Your task to perform on an android device: uninstall "Facebook Messenger" Image 0: 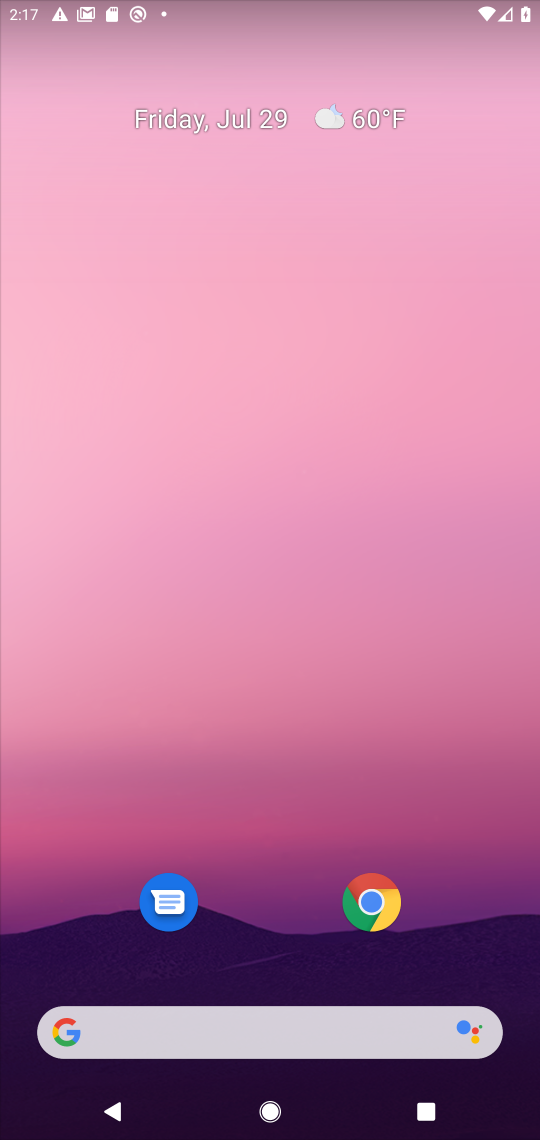
Step 0: drag from (219, 1016) to (271, 233)
Your task to perform on an android device: uninstall "Facebook Messenger" Image 1: 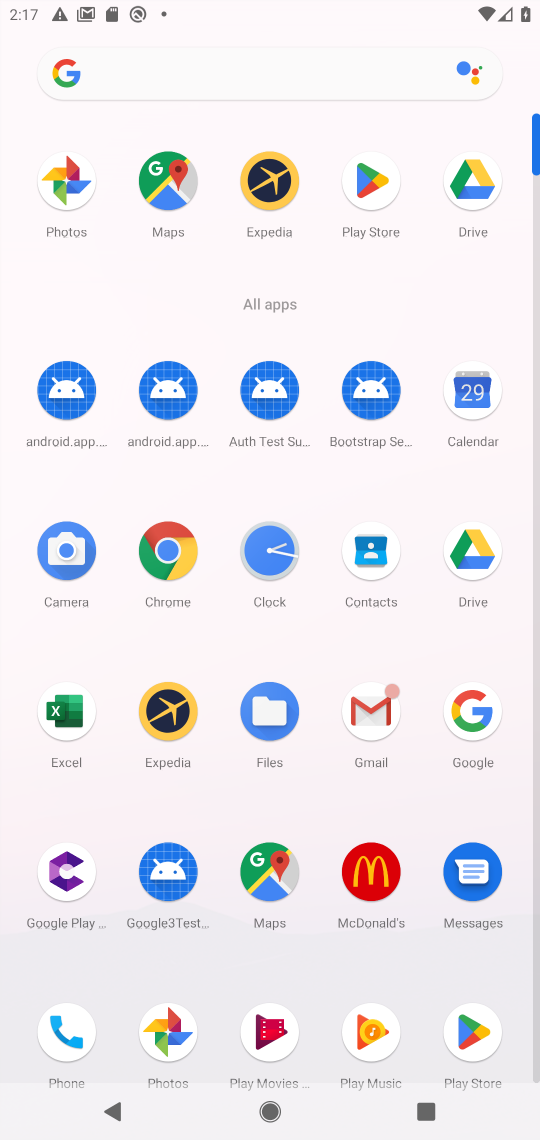
Step 1: click (454, 1031)
Your task to perform on an android device: uninstall "Facebook Messenger" Image 2: 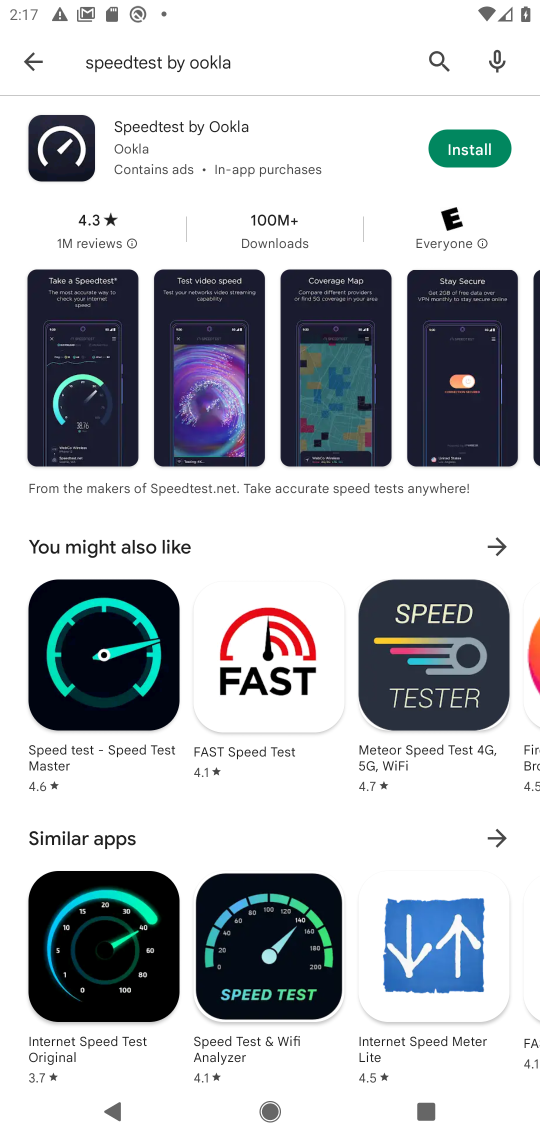
Step 2: click (433, 64)
Your task to perform on an android device: uninstall "Facebook Messenger" Image 3: 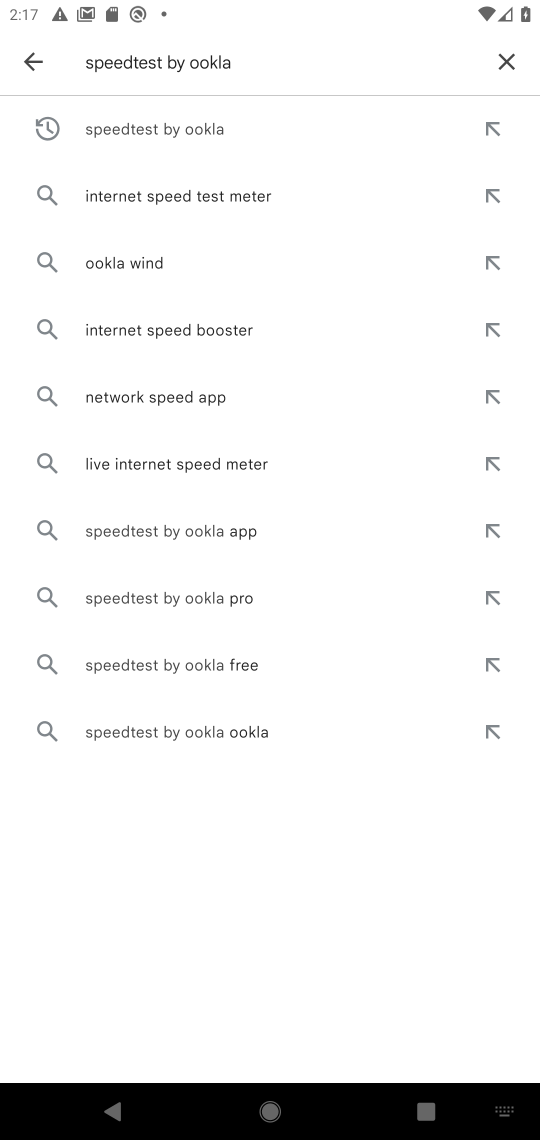
Step 3: type "Facebook Messenger"
Your task to perform on an android device: uninstall "Facebook Messenger" Image 4: 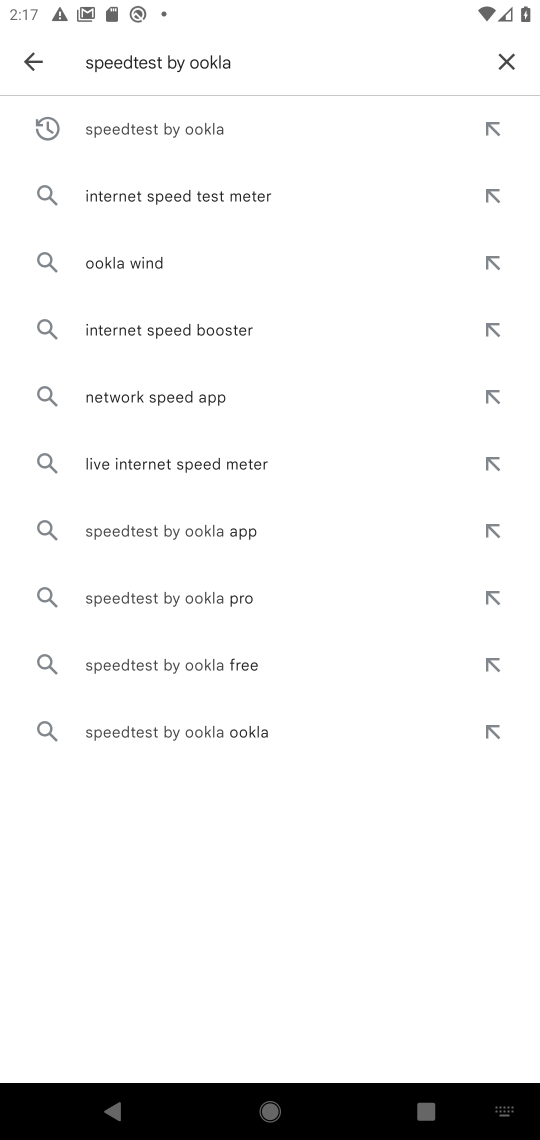
Step 4: click (500, 57)
Your task to perform on an android device: uninstall "Facebook Messenger" Image 5: 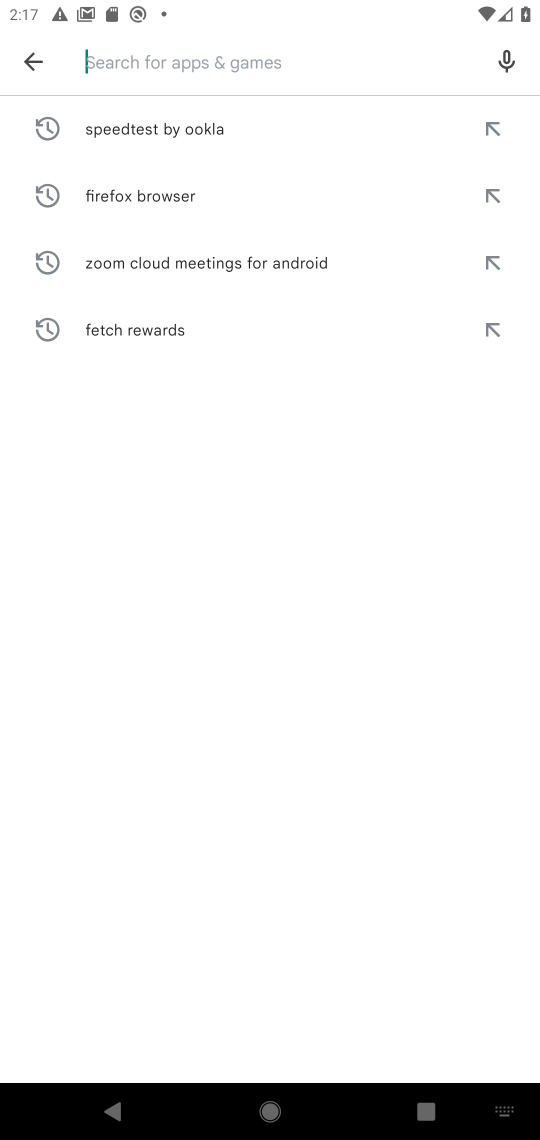
Step 5: type "Facebook Messenger"
Your task to perform on an android device: uninstall "Facebook Messenger" Image 6: 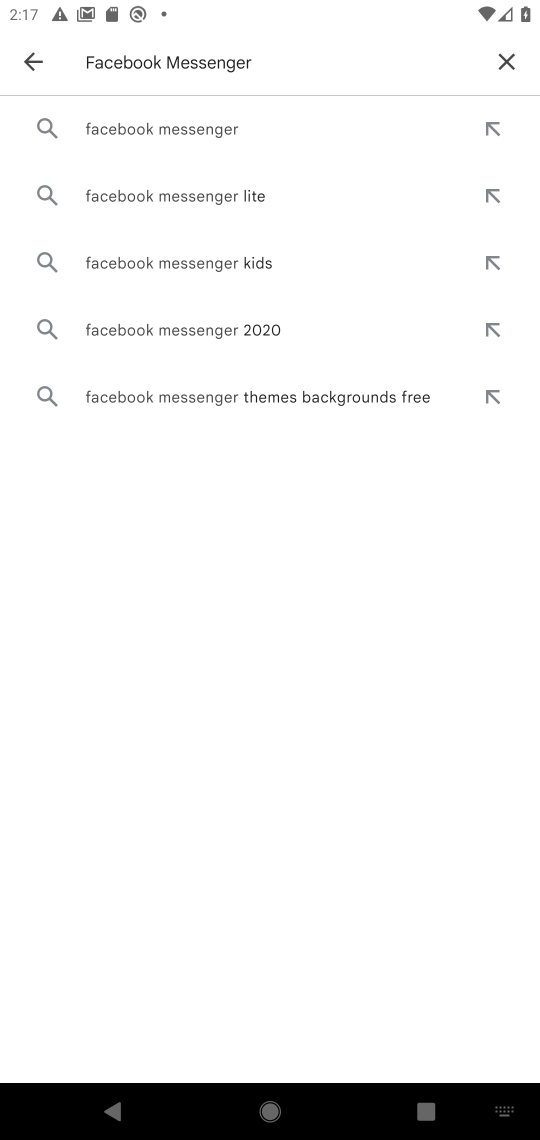
Step 6: click (113, 139)
Your task to perform on an android device: uninstall "Facebook Messenger" Image 7: 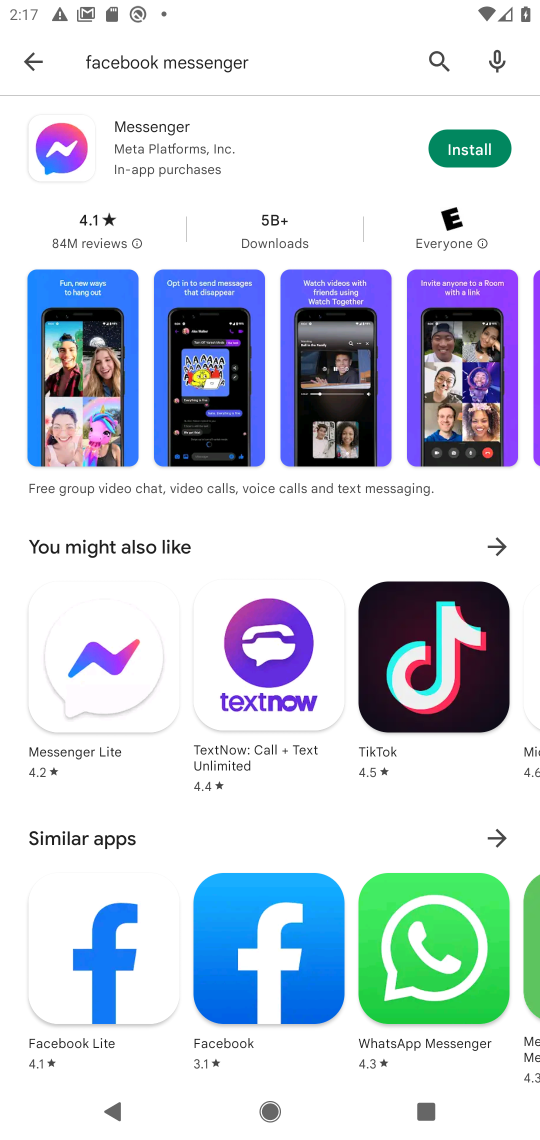
Step 7: task complete